Your task to perform on an android device: turn on notifications settings in the gmail app Image 0: 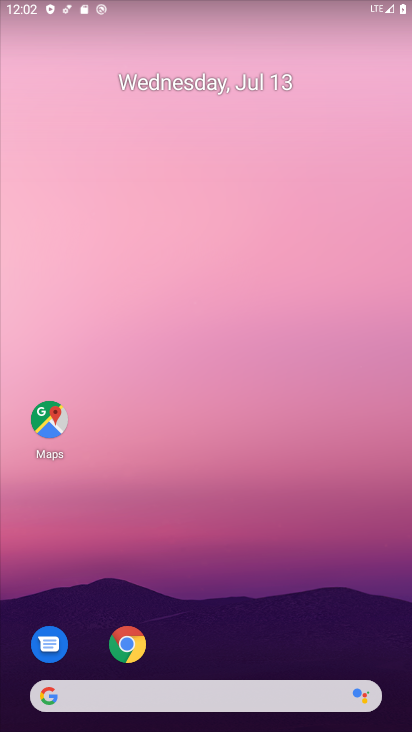
Step 0: drag from (195, 647) to (226, 157)
Your task to perform on an android device: turn on notifications settings in the gmail app Image 1: 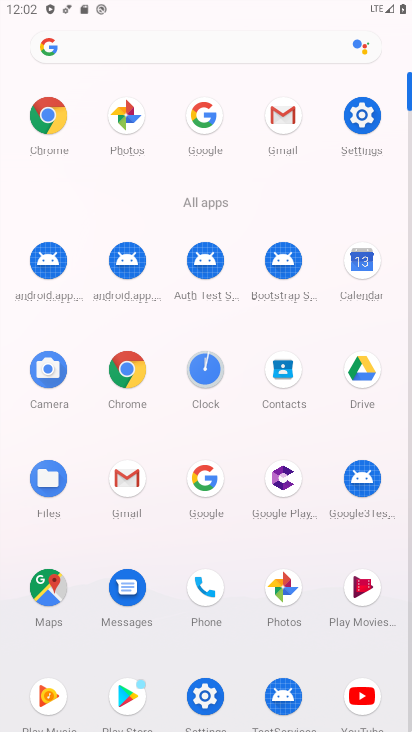
Step 1: click (359, 112)
Your task to perform on an android device: turn on notifications settings in the gmail app Image 2: 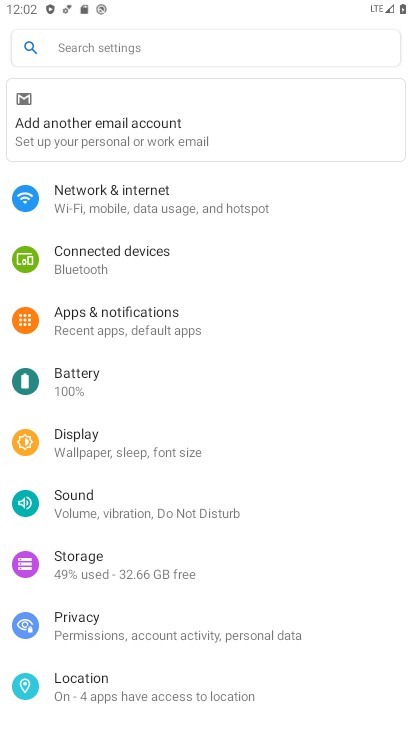
Step 2: click (121, 330)
Your task to perform on an android device: turn on notifications settings in the gmail app Image 3: 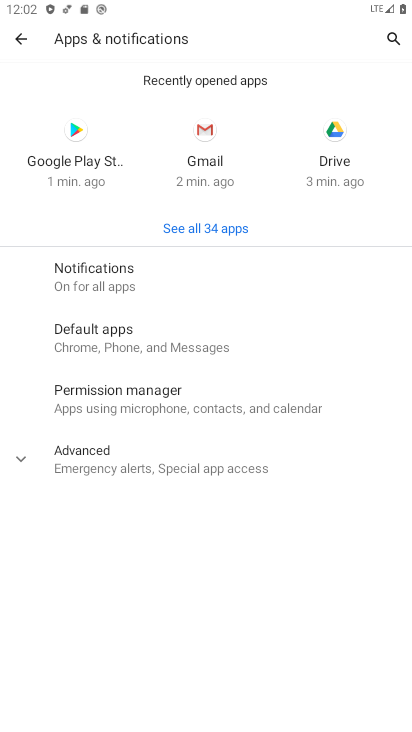
Step 3: click (116, 274)
Your task to perform on an android device: turn on notifications settings in the gmail app Image 4: 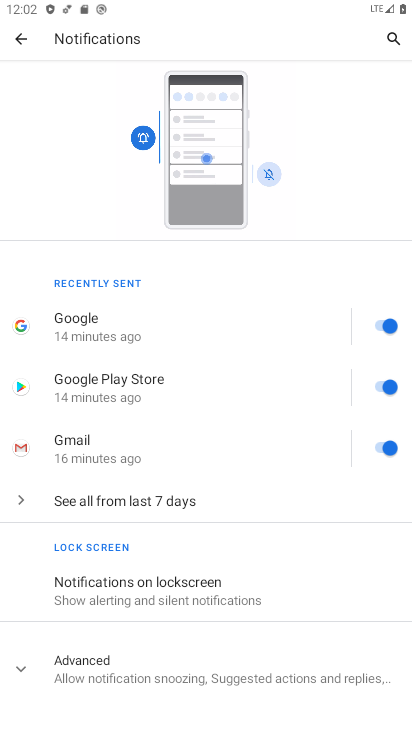
Step 4: drag from (145, 520) to (188, 253)
Your task to perform on an android device: turn on notifications settings in the gmail app Image 5: 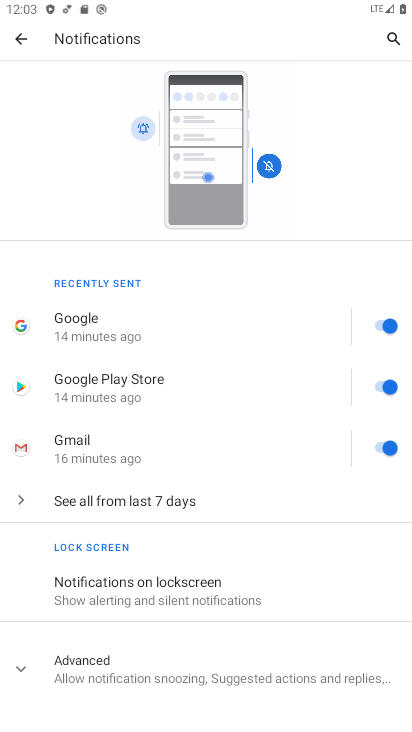
Step 5: click (76, 668)
Your task to perform on an android device: turn on notifications settings in the gmail app Image 6: 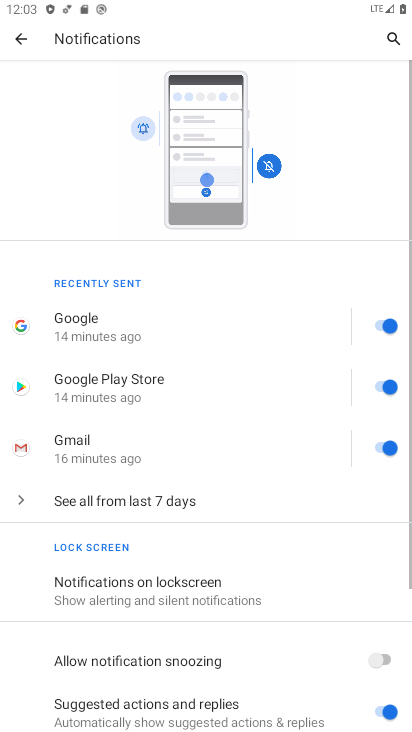
Step 6: drag from (299, 635) to (380, 226)
Your task to perform on an android device: turn on notifications settings in the gmail app Image 7: 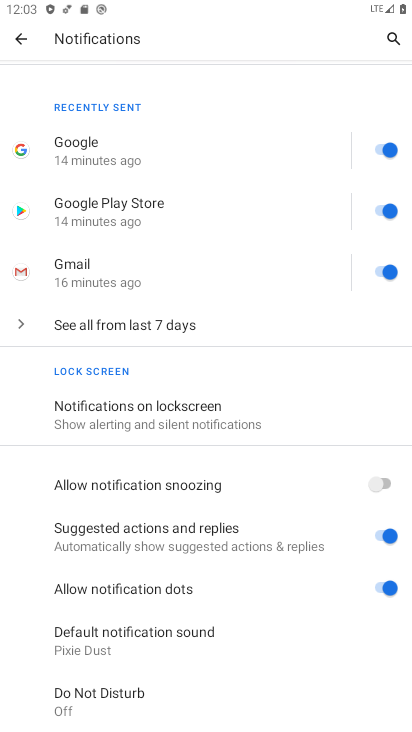
Step 7: drag from (264, 167) to (258, 562)
Your task to perform on an android device: turn on notifications settings in the gmail app Image 8: 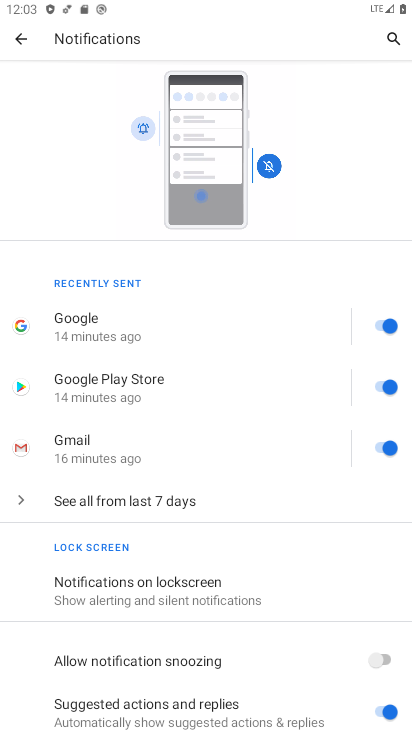
Step 8: drag from (261, 656) to (303, 228)
Your task to perform on an android device: turn on notifications settings in the gmail app Image 9: 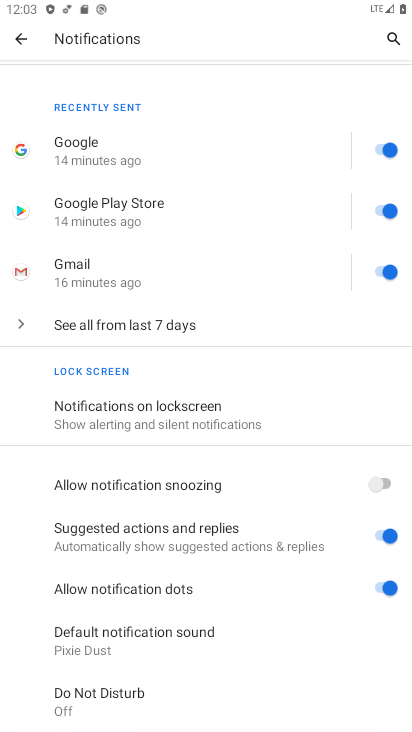
Step 9: click (372, 496)
Your task to perform on an android device: turn on notifications settings in the gmail app Image 10: 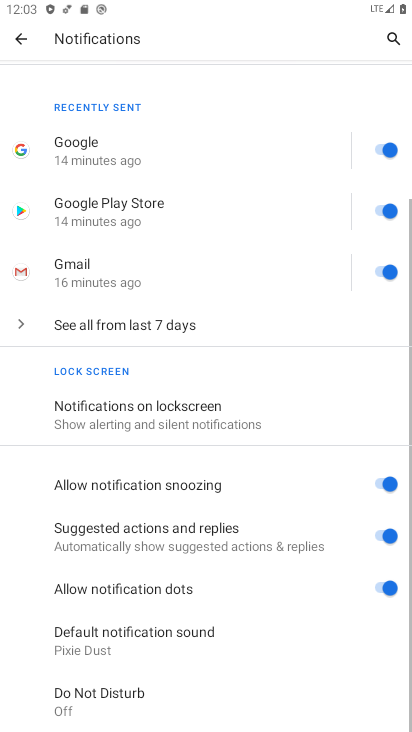
Step 10: task complete